Your task to perform on an android device: Open the phone app and click the voicemail tab. Image 0: 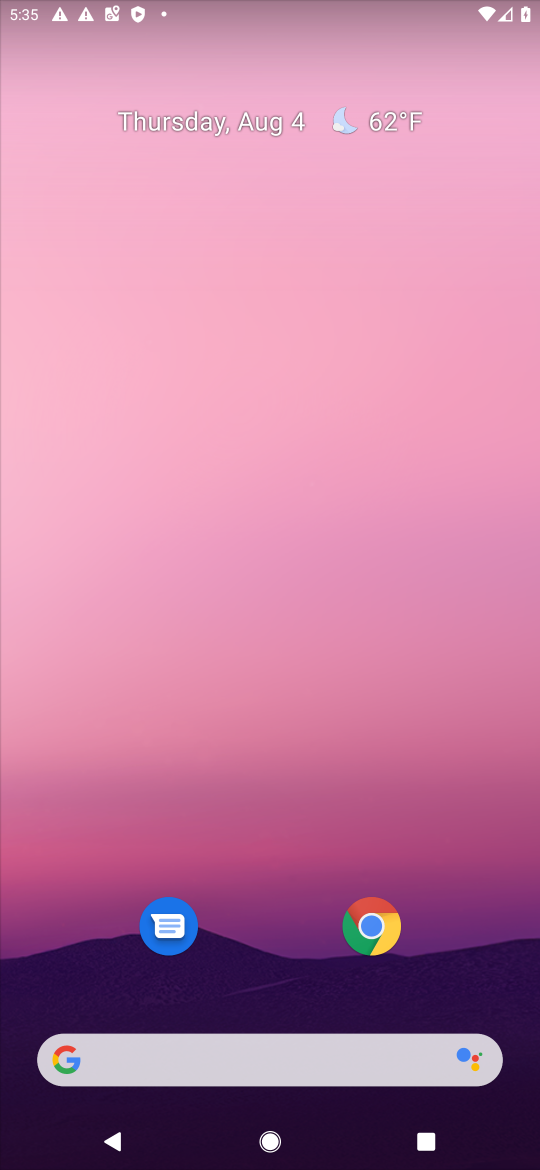
Step 0: press home button
Your task to perform on an android device: Open the phone app and click the voicemail tab. Image 1: 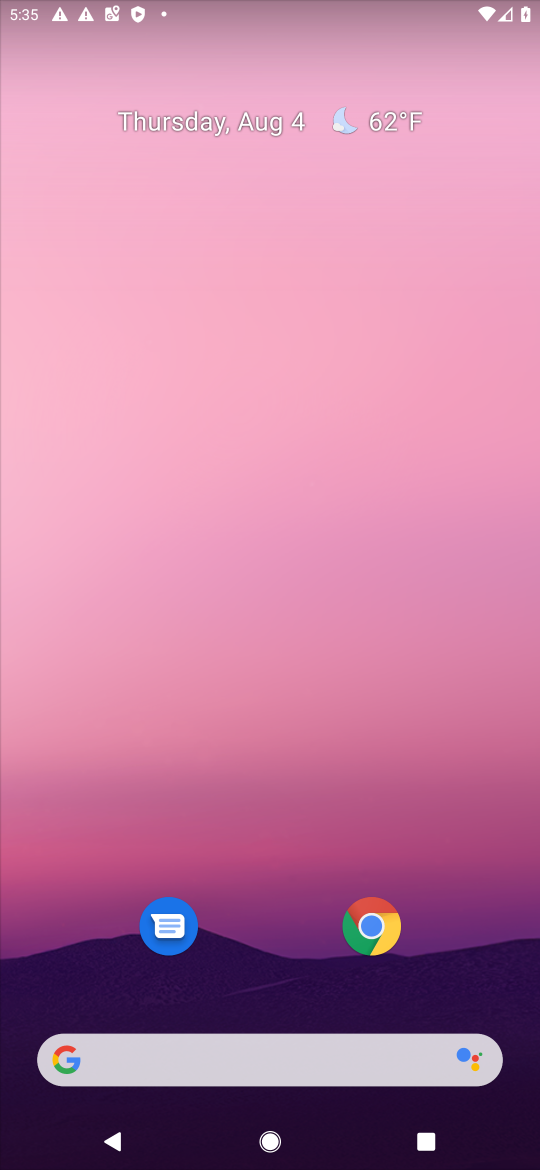
Step 1: drag from (293, 974) to (254, 138)
Your task to perform on an android device: Open the phone app and click the voicemail tab. Image 2: 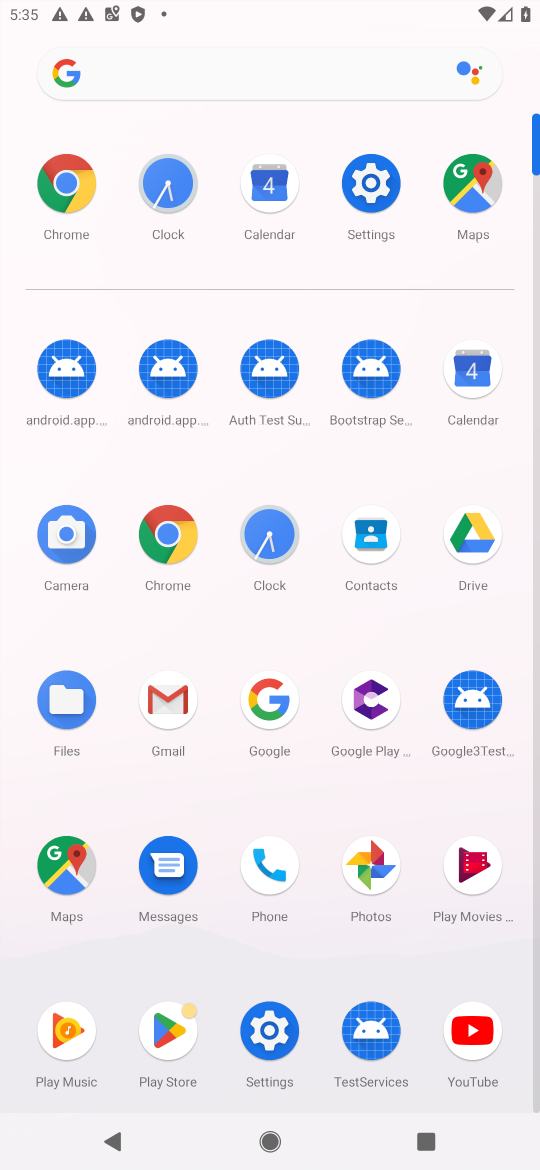
Step 2: click (265, 860)
Your task to perform on an android device: Open the phone app and click the voicemail tab. Image 3: 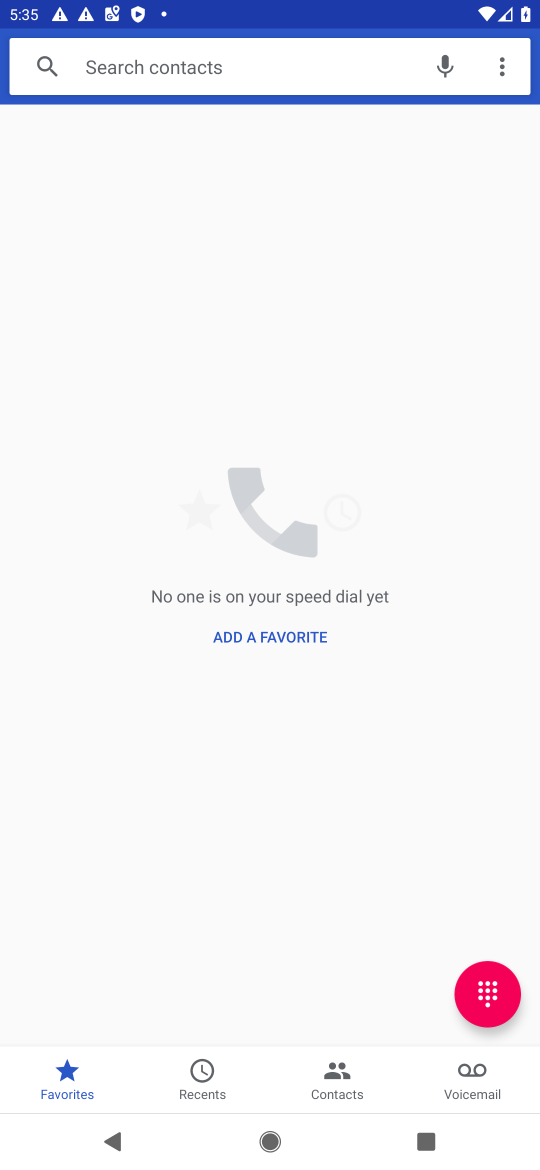
Step 3: click (477, 1062)
Your task to perform on an android device: Open the phone app and click the voicemail tab. Image 4: 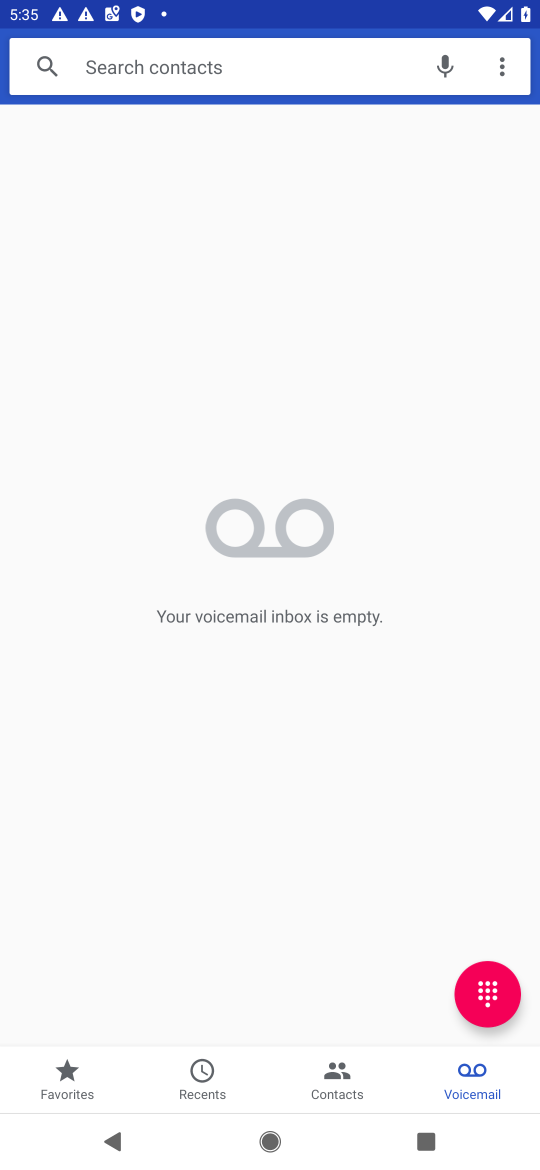
Step 4: task complete